Your task to perform on an android device: Go to display settings Image 0: 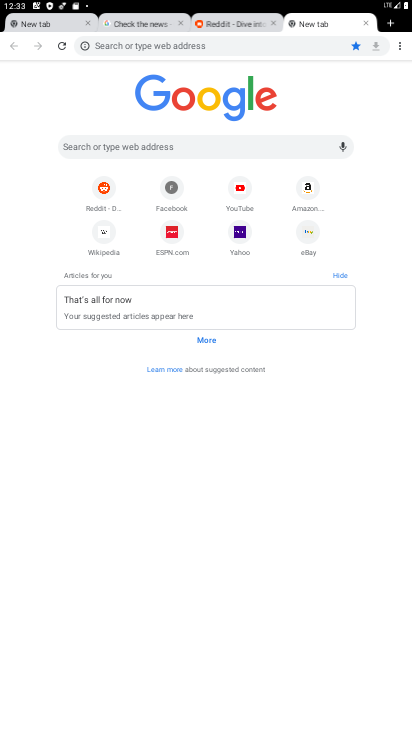
Step 0: press home button
Your task to perform on an android device: Go to display settings Image 1: 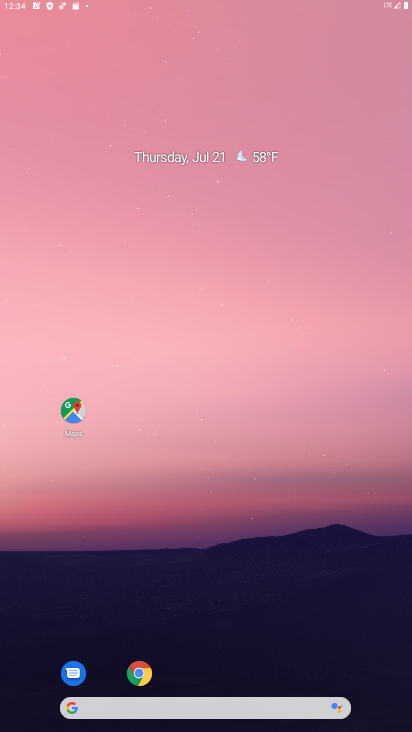
Step 1: drag from (205, 667) to (215, 227)
Your task to perform on an android device: Go to display settings Image 2: 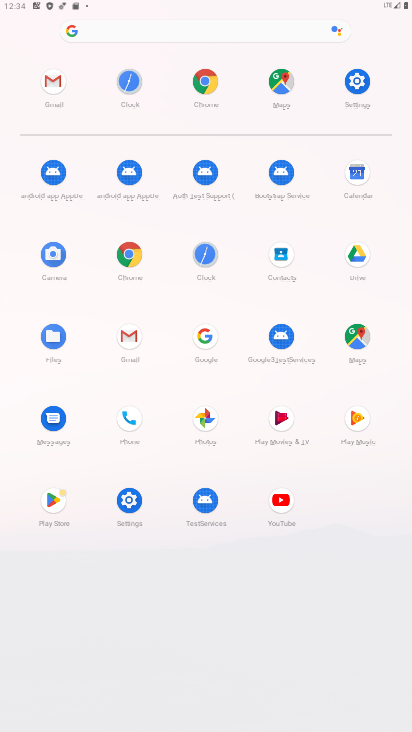
Step 2: click (351, 70)
Your task to perform on an android device: Go to display settings Image 3: 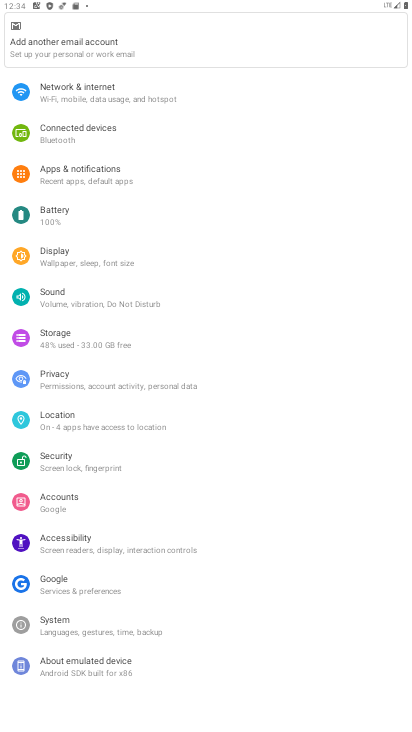
Step 3: click (83, 244)
Your task to perform on an android device: Go to display settings Image 4: 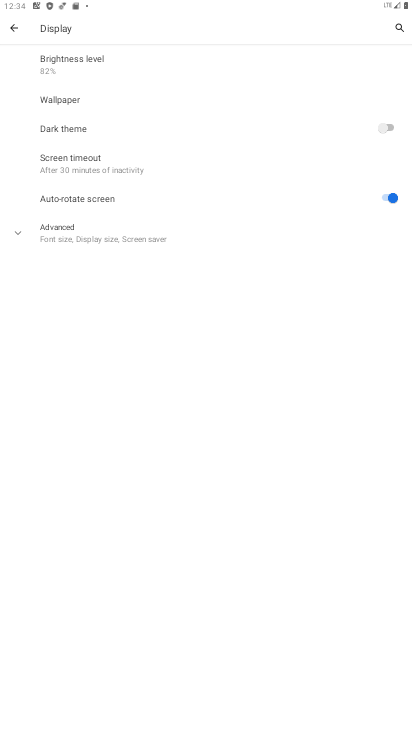
Step 4: task complete